Your task to perform on an android device: Open Chrome and go to settings Image 0: 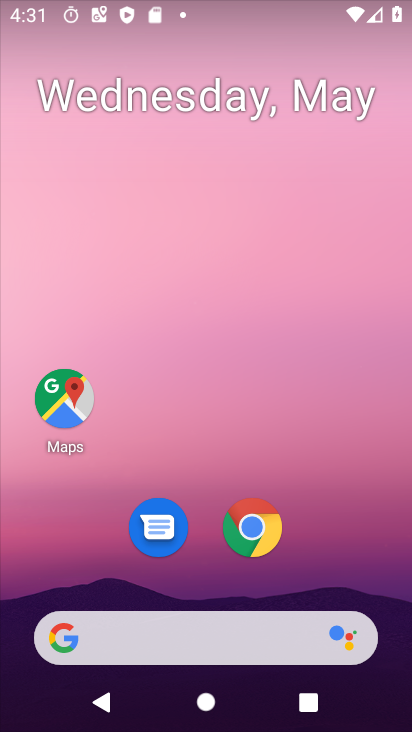
Step 0: click (254, 536)
Your task to perform on an android device: Open Chrome and go to settings Image 1: 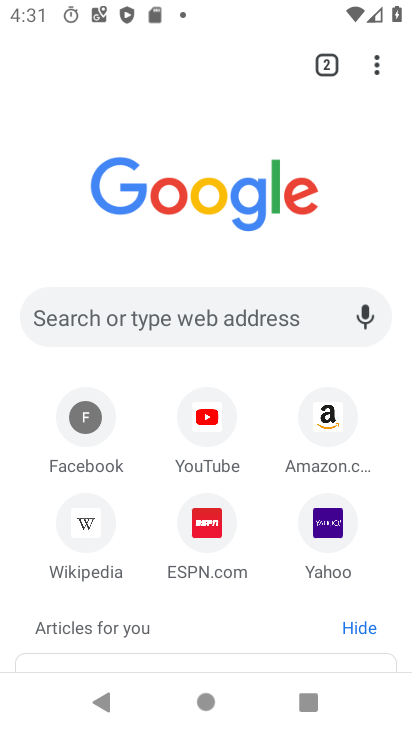
Step 1: task complete